Your task to perform on an android device: Go to calendar. Show me events next week Image 0: 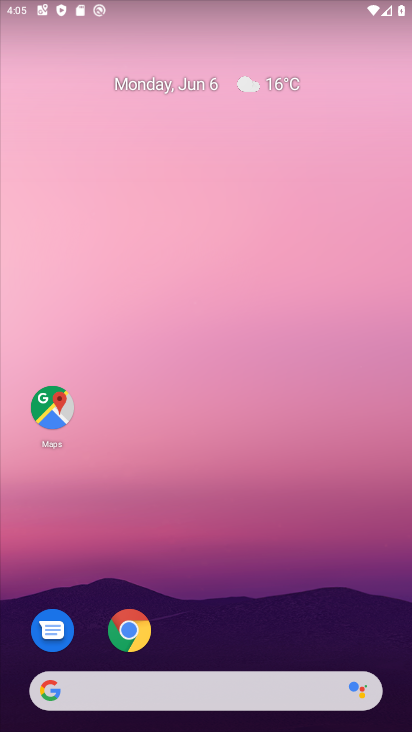
Step 0: drag from (179, 659) to (271, 167)
Your task to perform on an android device: Go to calendar. Show me events next week Image 1: 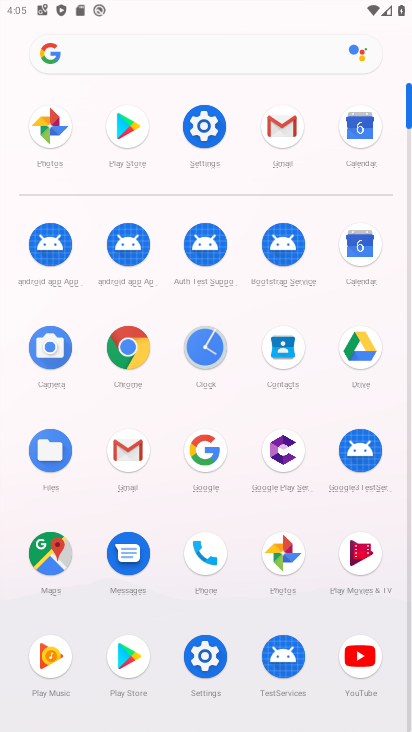
Step 1: click (350, 238)
Your task to perform on an android device: Go to calendar. Show me events next week Image 2: 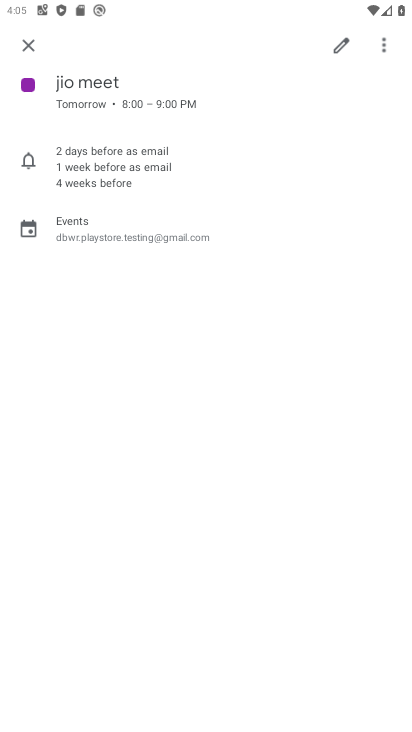
Step 2: click (31, 51)
Your task to perform on an android device: Go to calendar. Show me events next week Image 3: 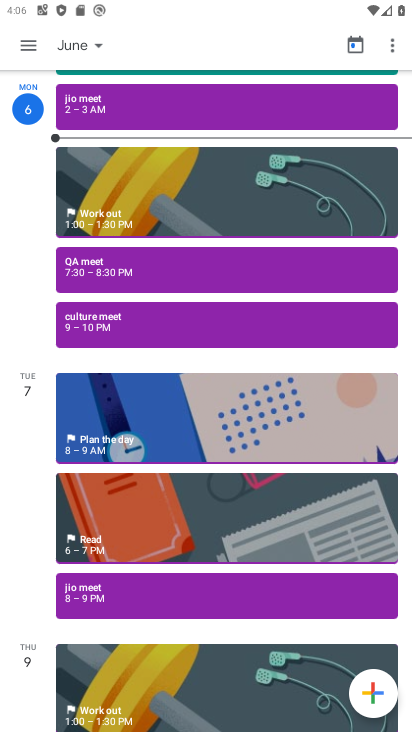
Step 3: click (78, 42)
Your task to perform on an android device: Go to calendar. Show me events next week Image 4: 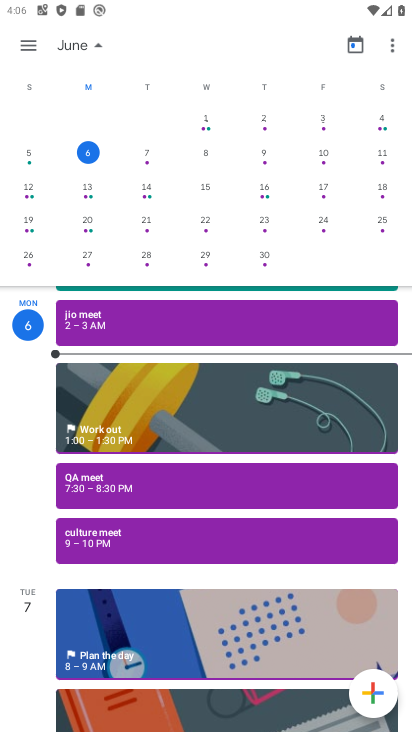
Step 4: click (92, 194)
Your task to perform on an android device: Go to calendar. Show me events next week Image 5: 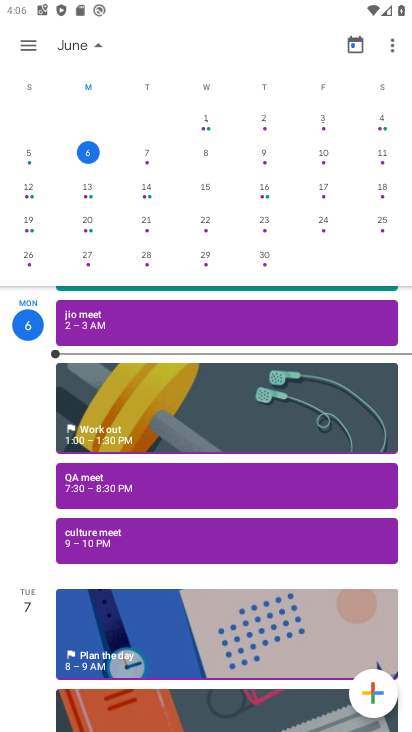
Step 5: click (90, 185)
Your task to perform on an android device: Go to calendar. Show me events next week Image 6: 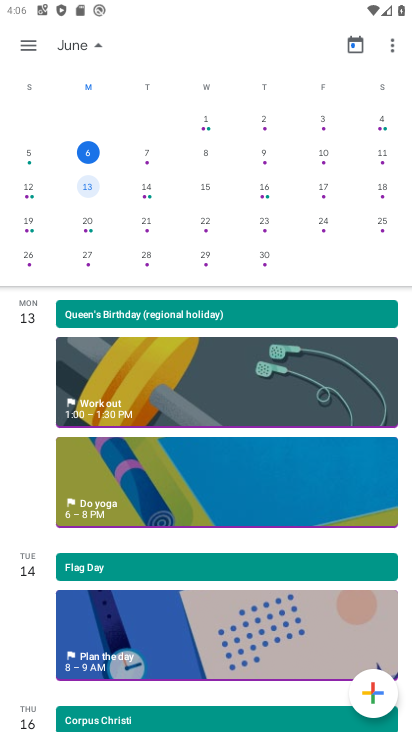
Step 6: drag from (143, 647) to (196, 338)
Your task to perform on an android device: Go to calendar. Show me events next week Image 7: 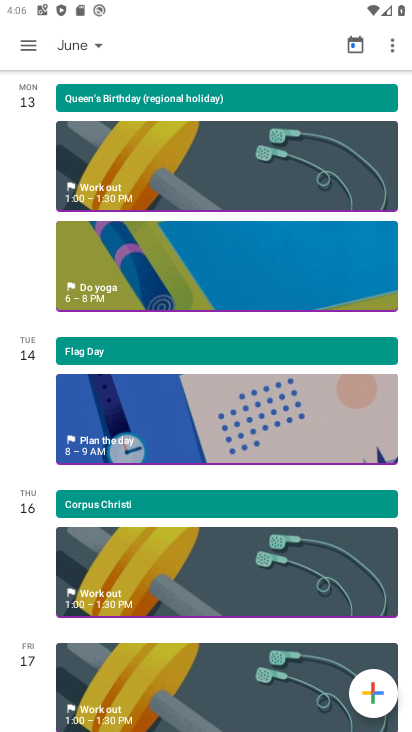
Step 7: click (124, 99)
Your task to perform on an android device: Go to calendar. Show me events next week Image 8: 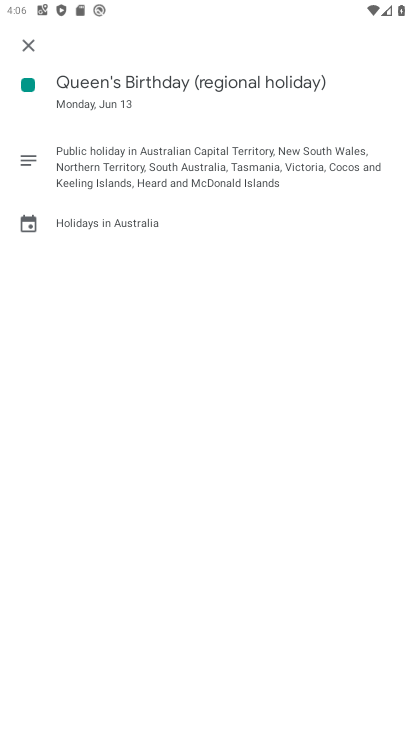
Step 8: task complete